Your task to perform on an android device: Search for flights from Sydney to Buenos aires Image 0: 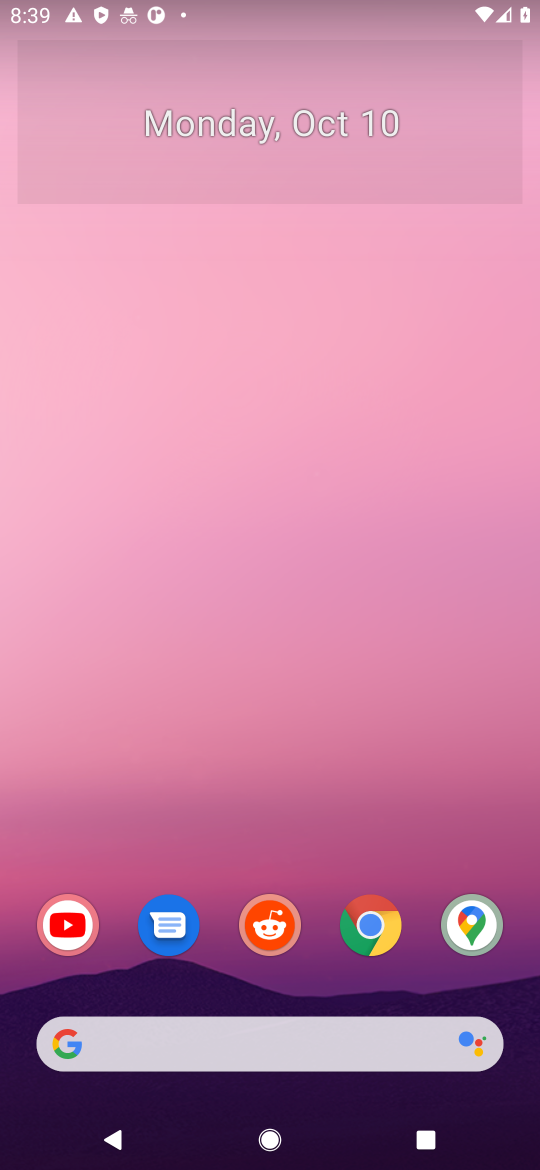
Step 0: drag from (309, 1002) to (302, 39)
Your task to perform on an android device: Search for flights from Sydney to Buenos aires Image 1: 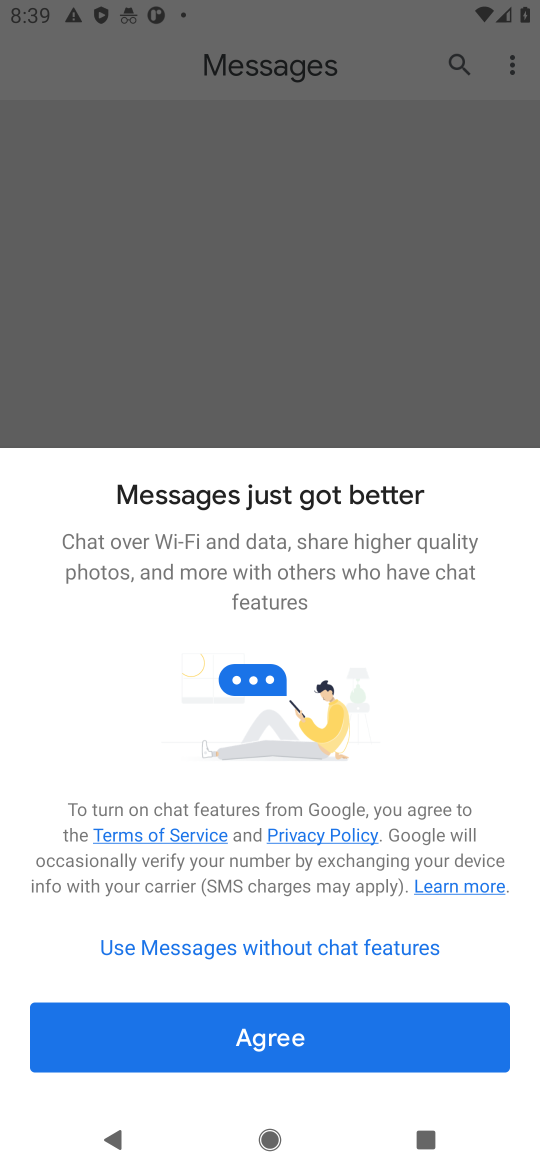
Step 1: press home button
Your task to perform on an android device: Search for flights from Sydney to Buenos aires Image 2: 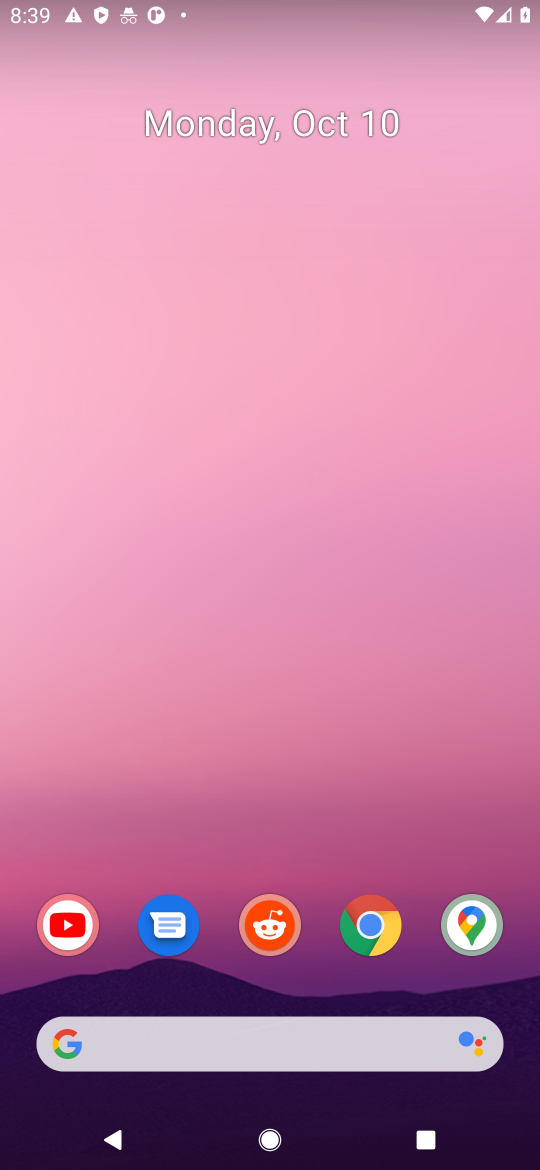
Step 2: drag from (319, 990) to (285, 89)
Your task to perform on an android device: Search for flights from Sydney to Buenos aires Image 3: 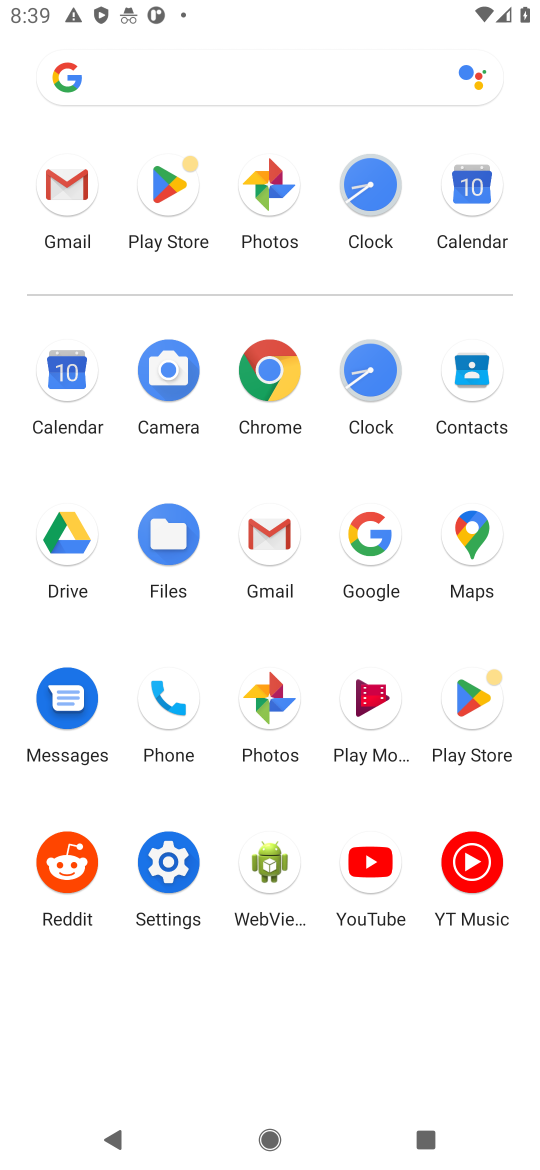
Step 3: click (270, 370)
Your task to perform on an android device: Search for flights from Sydney to Buenos aires Image 4: 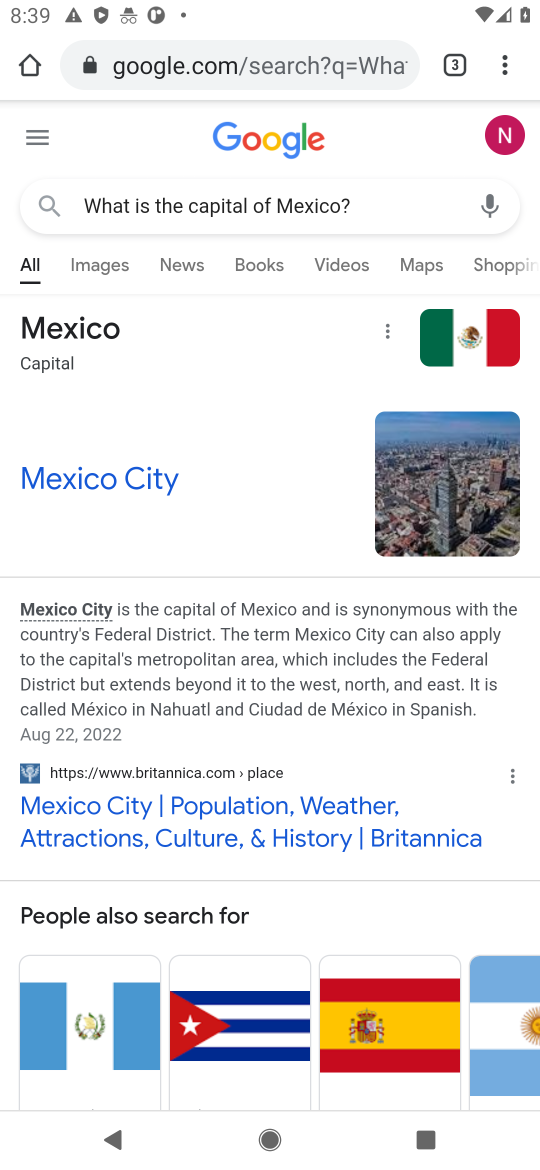
Step 4: click (294, 58)
Your task to perform on an android device: Search for flights from Sydney to Buenos aires Image 5: 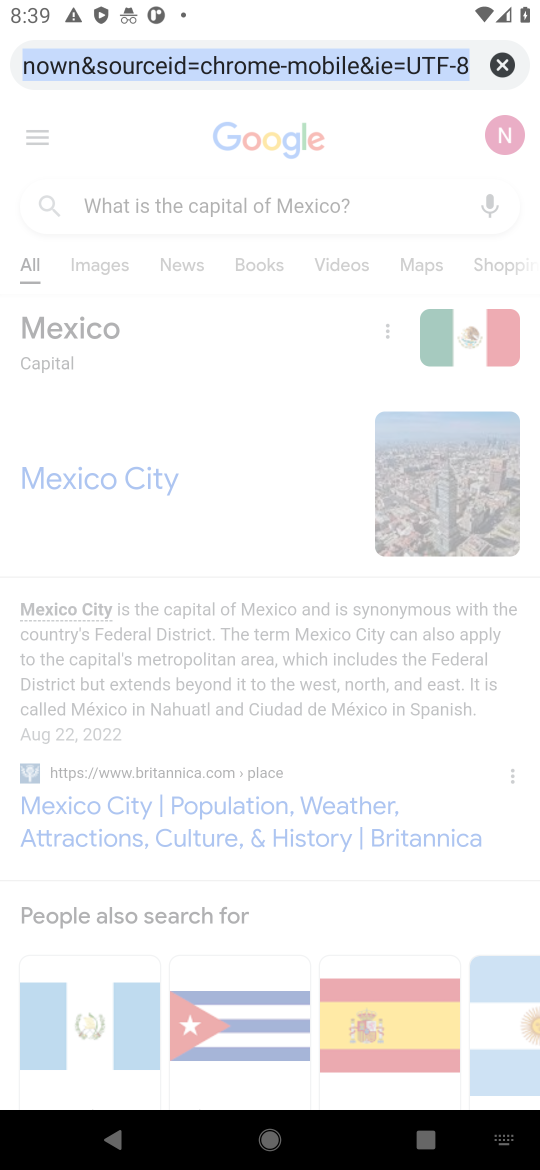
Step 5: type "flights from Sydney to Buenos aires"
Your task to perform on an android device: Search for flights from Sydney to Buenos aires Image 6: 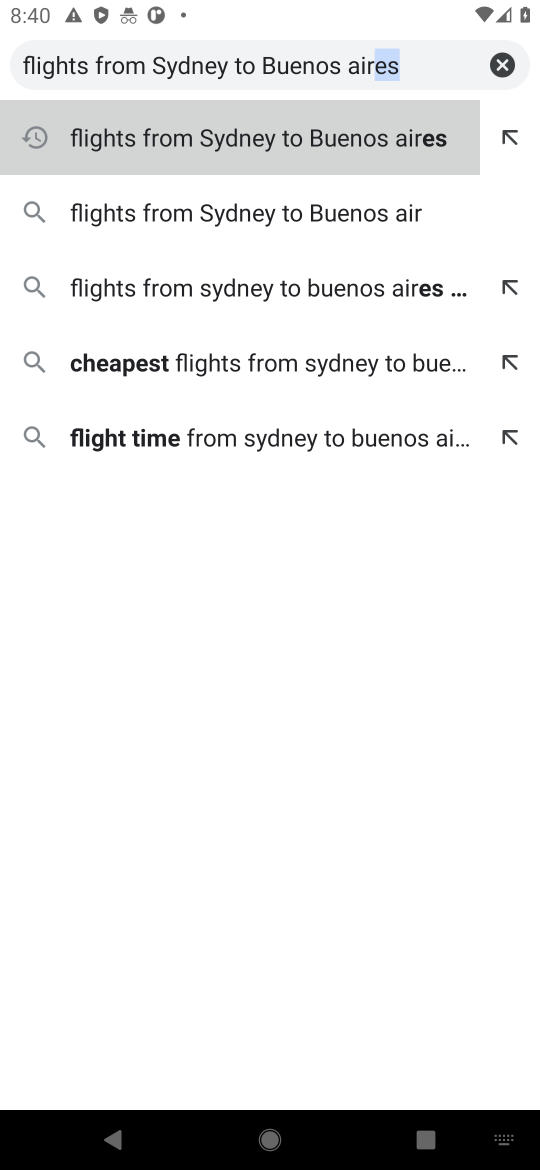
Step 6: press enter
Your task to perform on an android device: Search for flights from Sydney to Buenos aires Image 7: 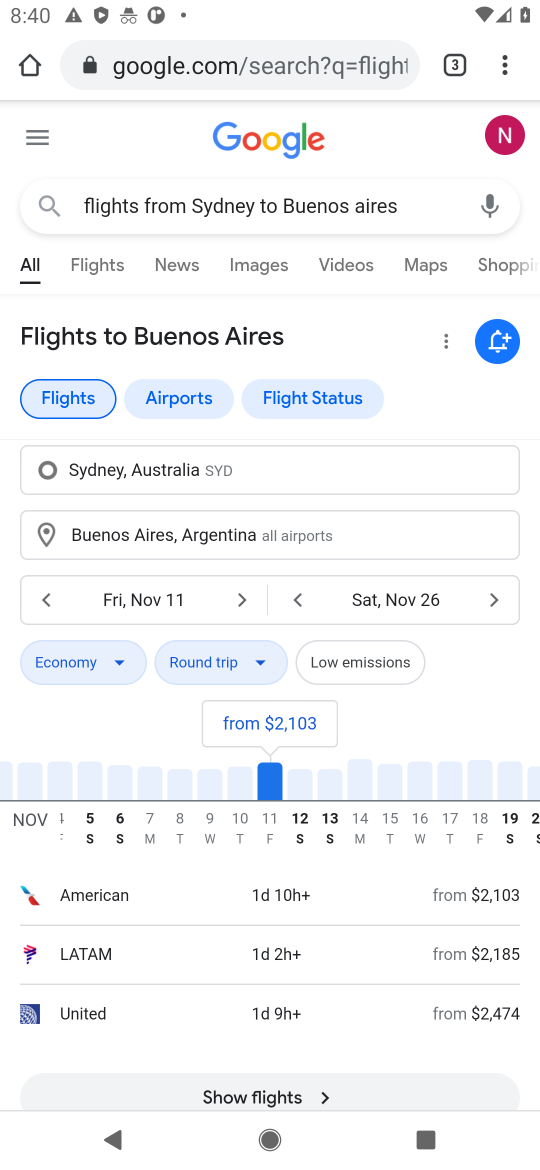
Step 7: task complete